Your task to perform on an android device: open app "Adobe Acrobat Reader: Edit PDF" Image 0: 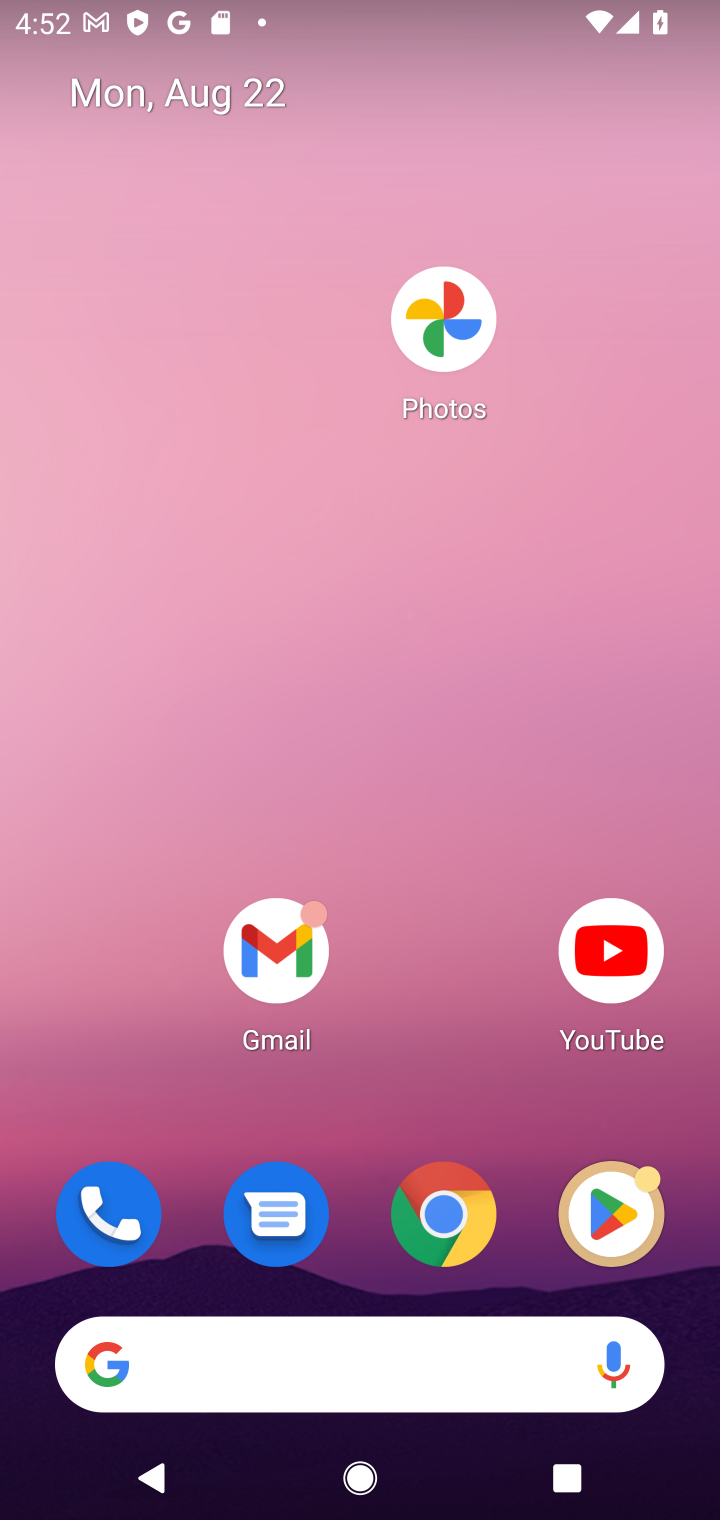
Step 0: click (616, 1217)
Your task to perform on an android device: open app "Adobe Acrobat Reader: Edit PDF" Image 1: 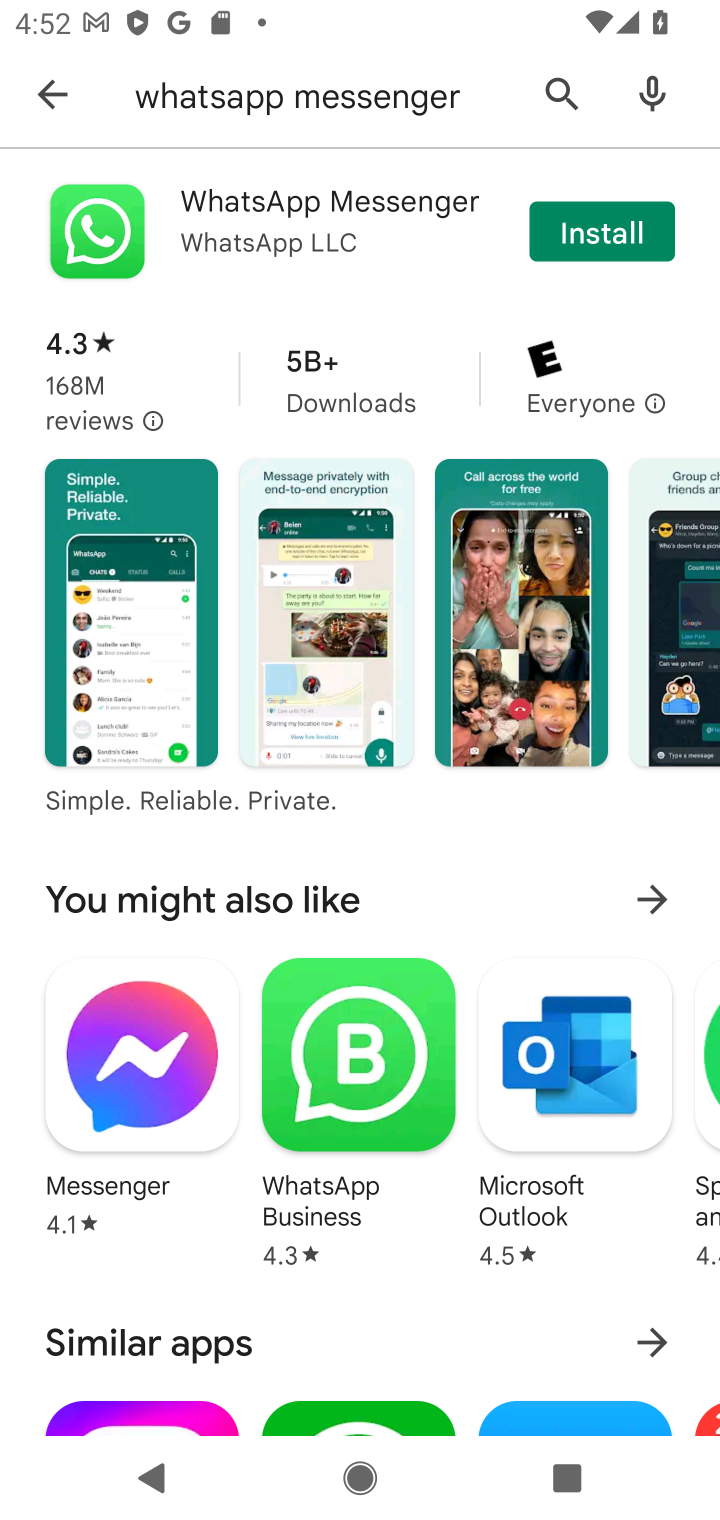
Step 1: click (558, 93)
Your task to perform on an android device: open app "Adobe Acrobat Reader: Edit PDF" Image 2: 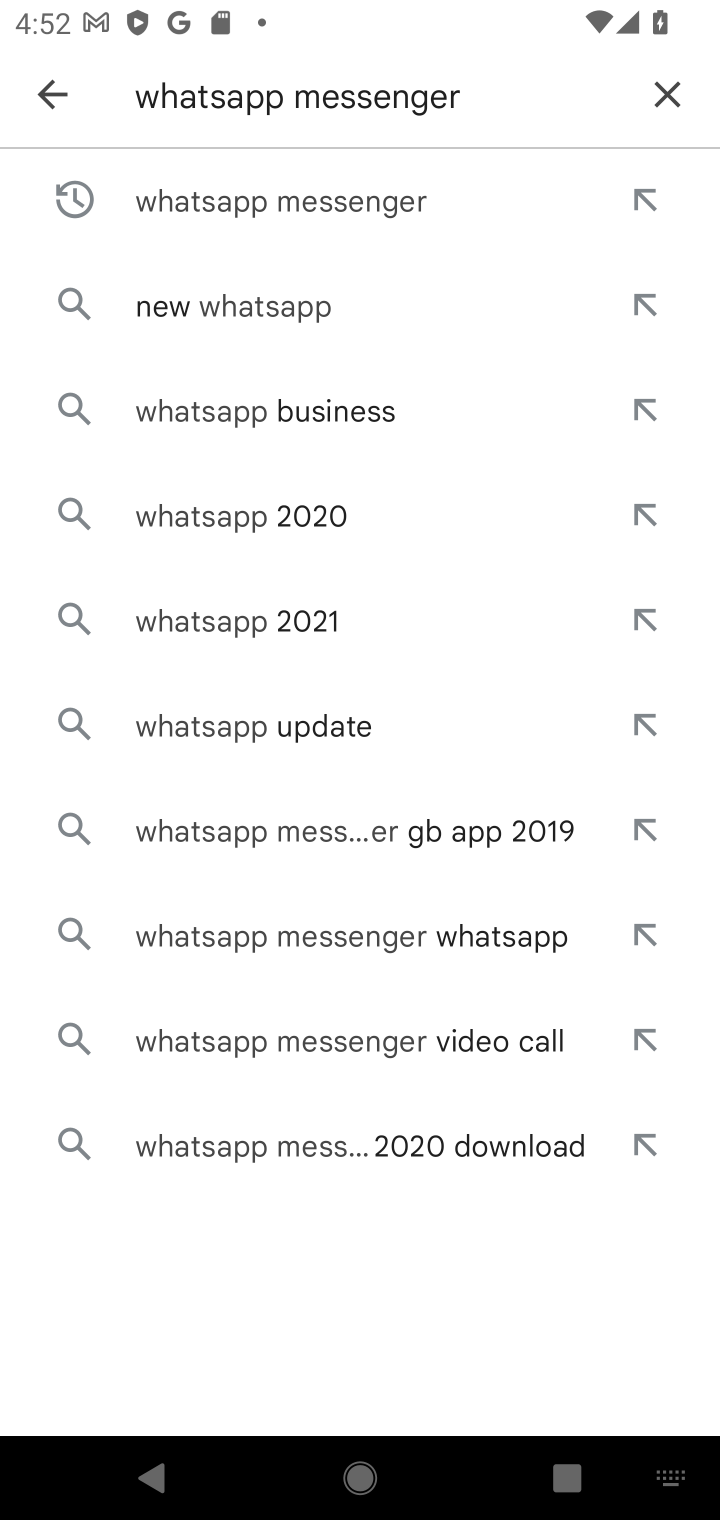
Step 2: click (659, 94)
Your task to perform on an android device: open app "Adobe Acrobat Reader: Edit PDF" Image 3: 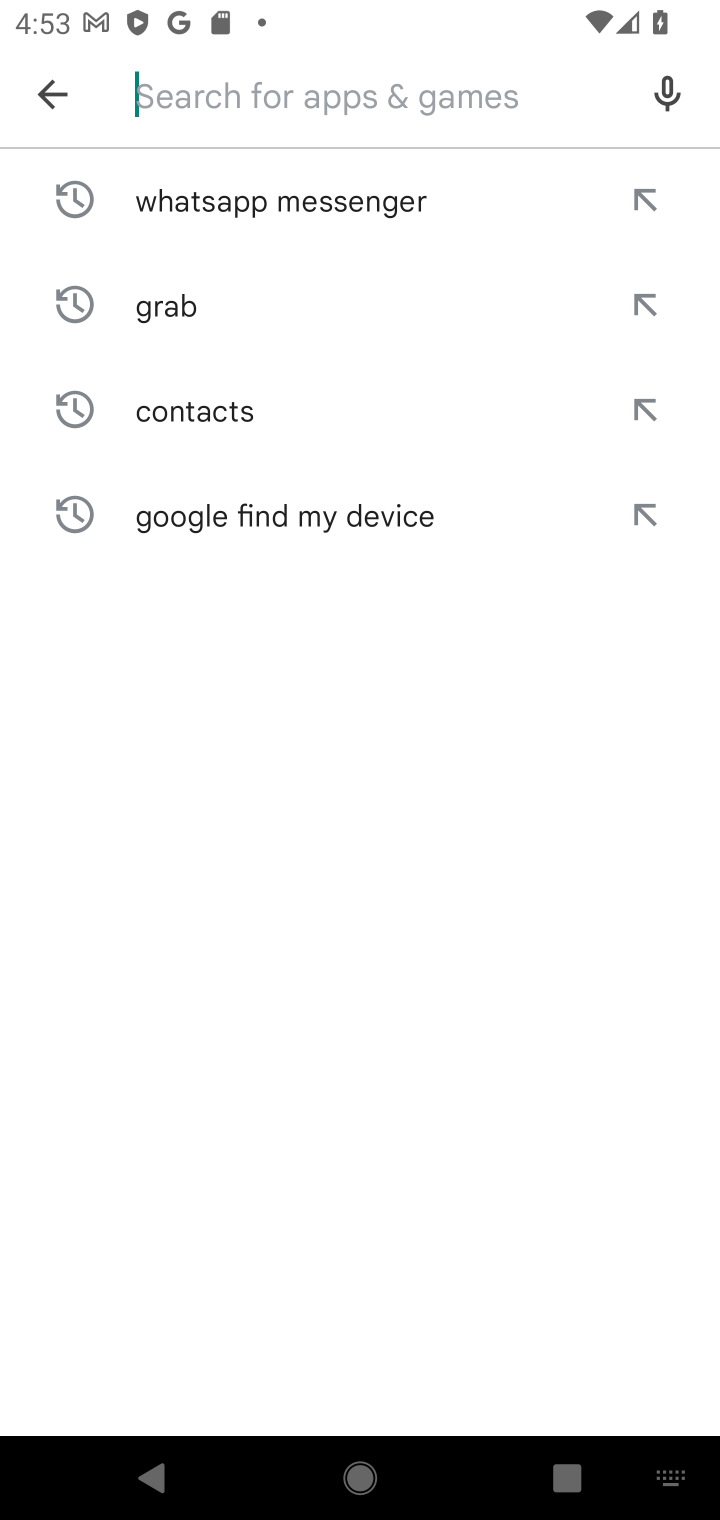
Step 3: type "Adobe Acrobat Reader: Edit PDF"
Your task to perform on an android device: open app "Adobe Acrobat Reader: Edit PDF" Image 4: 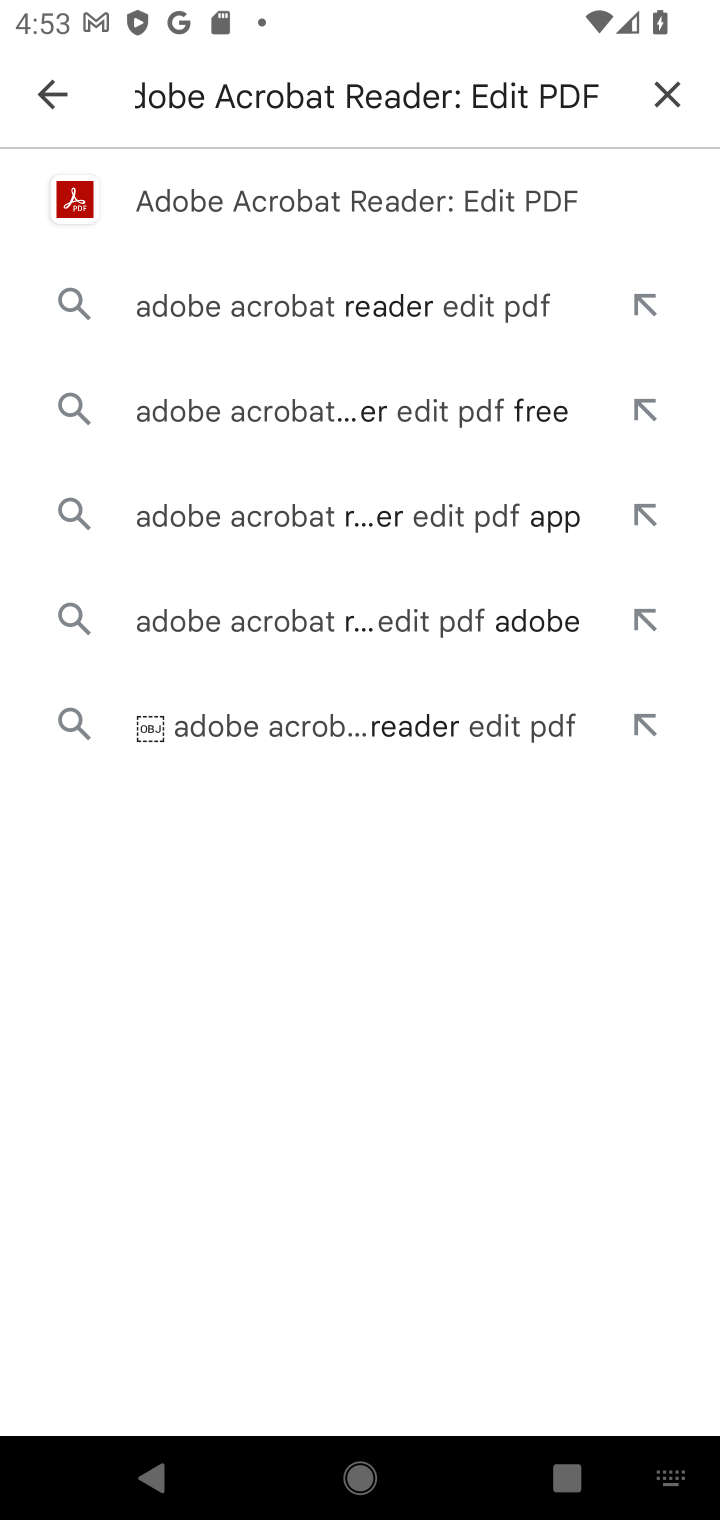
Step 4: click (241, 199)
Your task to perform on an android device: open app "Adobe Acrobat Reader: Edit PDF" Image 5: 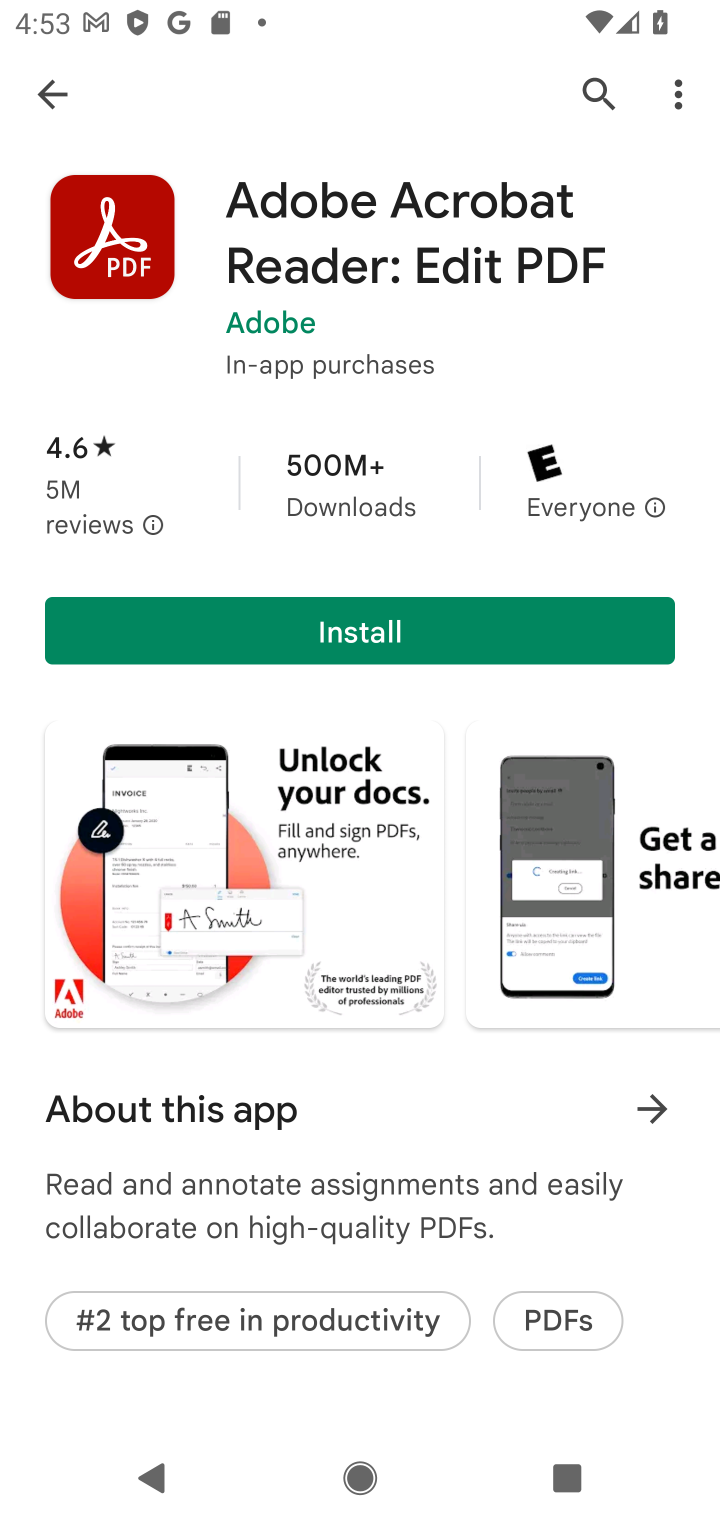
Step 5: task complete